Your task to perform on an android device: turn on bluetooth scan Image 0: 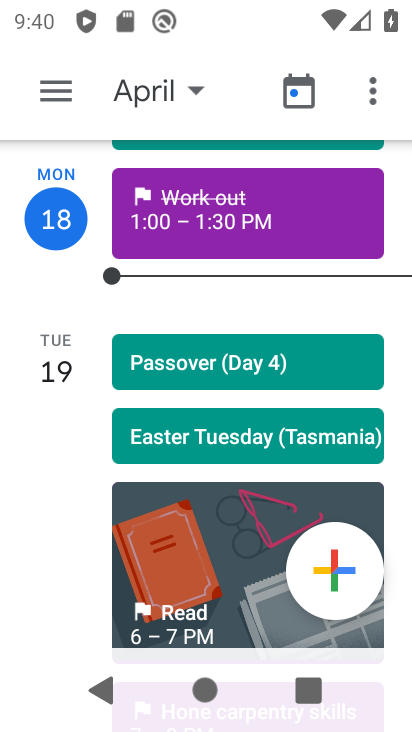
Step 0: press home button
Your task to perform on an android device: turn on bluetooth scan Image 1: 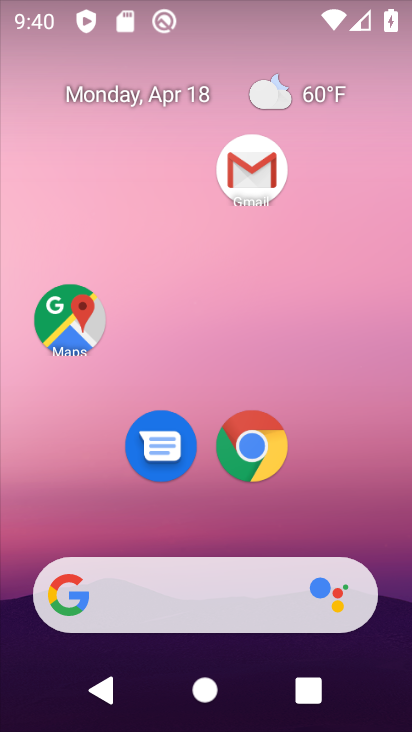
Step 1: drag from (244, 512) to (250, 29)
Your task to perform on an android device: turn on bluetooth scan Image 2: 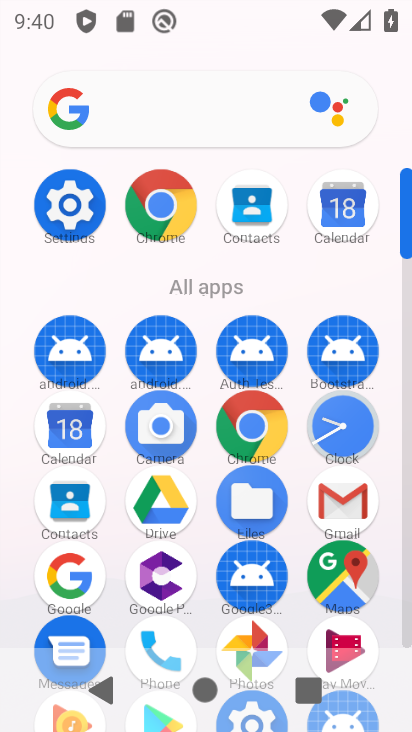
Step 2: click (71, 209)
Your task to perform on an android device: turn on bluetooth scan Image 3: 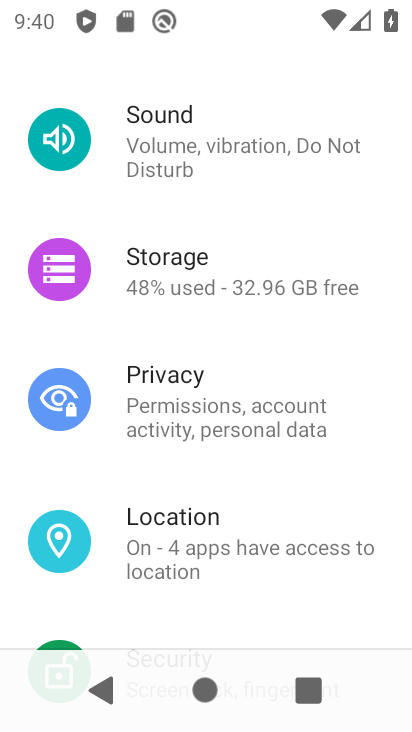
Step 3: drag from (298, 357) to (290, 548)
Your task to perform on an android device: turn on bluetooth scan Image 4: 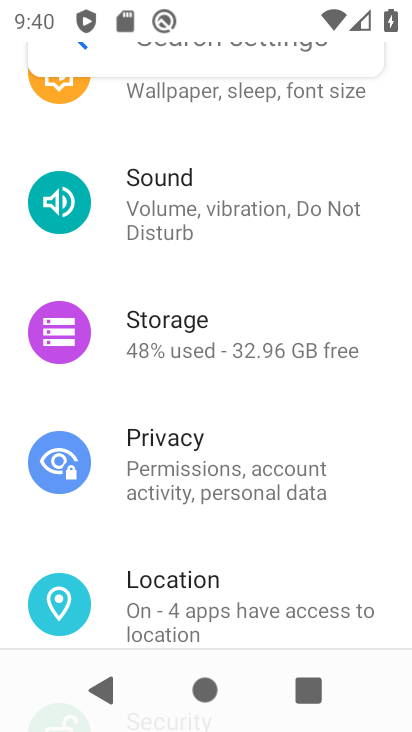
Step 4: drag from (325, 144) to (335, 549)
Your task to perform on an android device: turn on bluetooth scan Image 5: 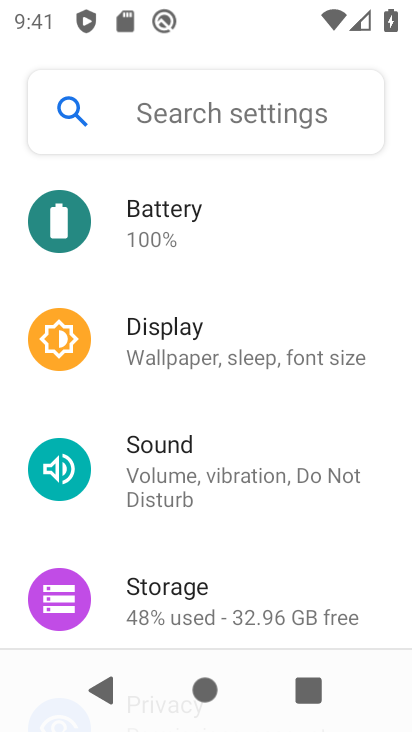
Step 5: drag from (226, 553) to (257, 81)
Your task to perform on an android device: turn on bluetooth scan Image 6: 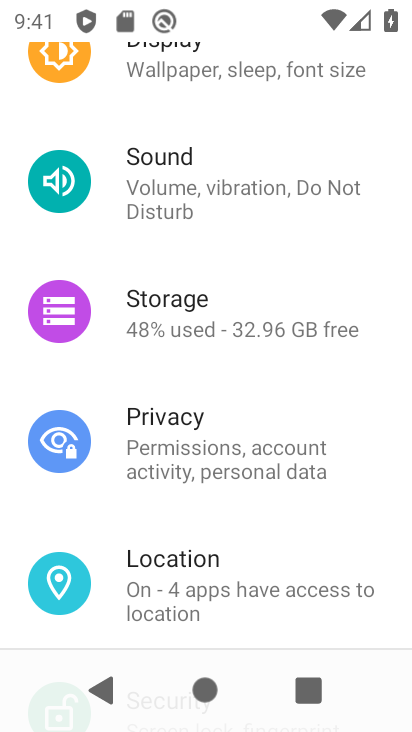
Step 6: drag from (231, 534) to (280, 60)
Your task to perform on an android device: turn on bluetooth scan Image 7: 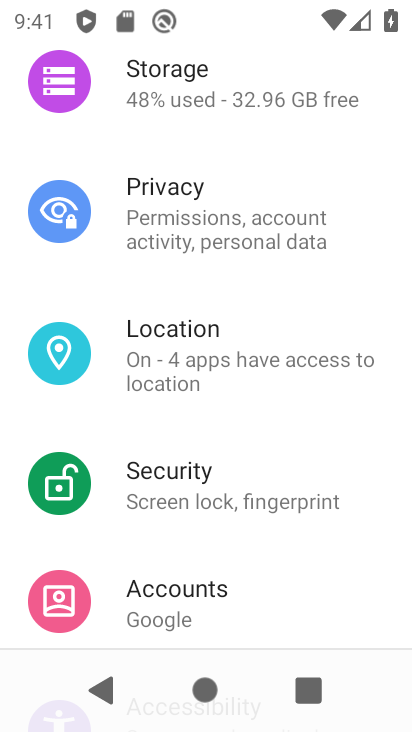
Step 7: drag from (299, 462) to (337, 44)
Your task to perform on an android device: turn on bluetooth scan Image 8: 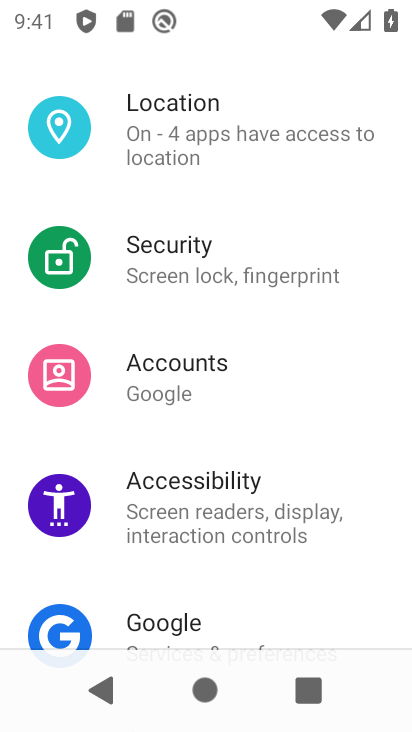
Step 8: drag from (357, 93) to (285, 598)
Your task to perform on an android device: turn on bluetooth scan Image 9: 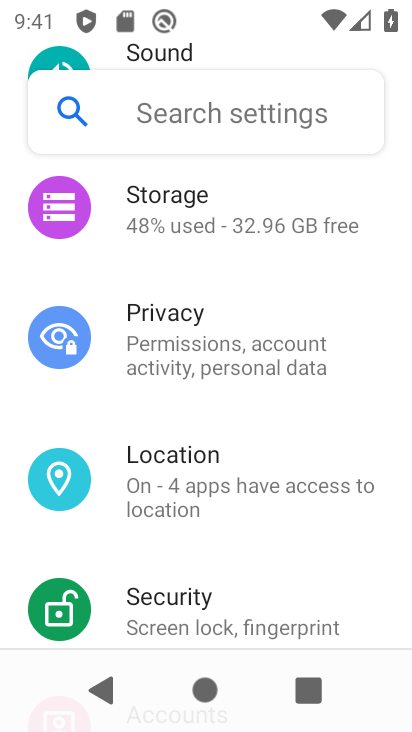
Step 9: click (333, 195)
Your task to perform on an android device: turn on bluetooth scan Image 10: 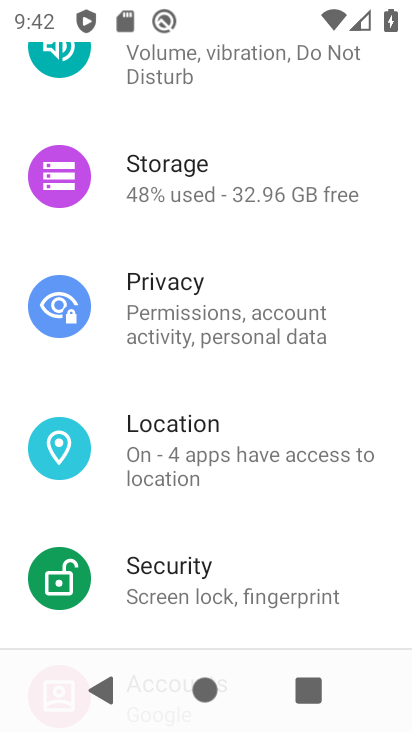
Step 10: drag from (257, 524) to (252, 166)
Your task to perform on an android device: turn on bluetooth scan Image 11: 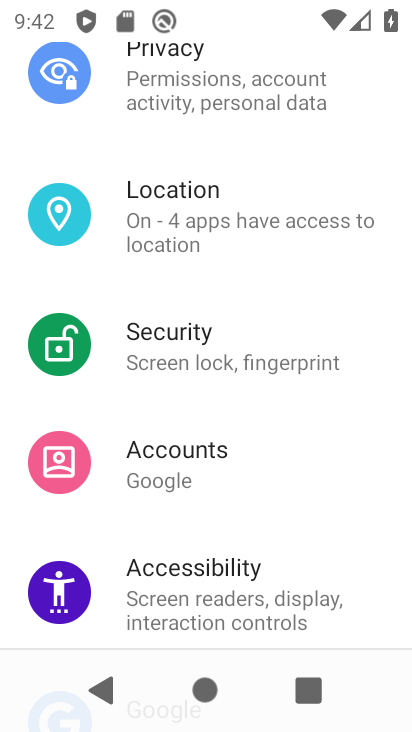
Step 11: drag from (344, 186) to (259, 551)
Your task to perform on an android device: turn on bluetooth scan Image 12: 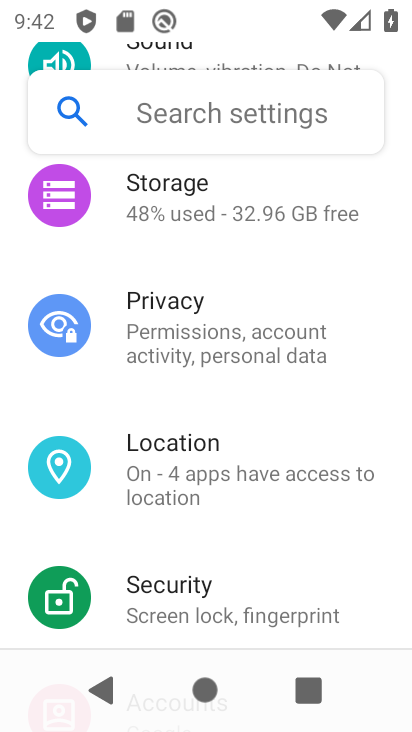
Step 12: drag from (344, 308) to (286, 507)
Your task to perform on an android device: turn on bluetooth scan Image 13: 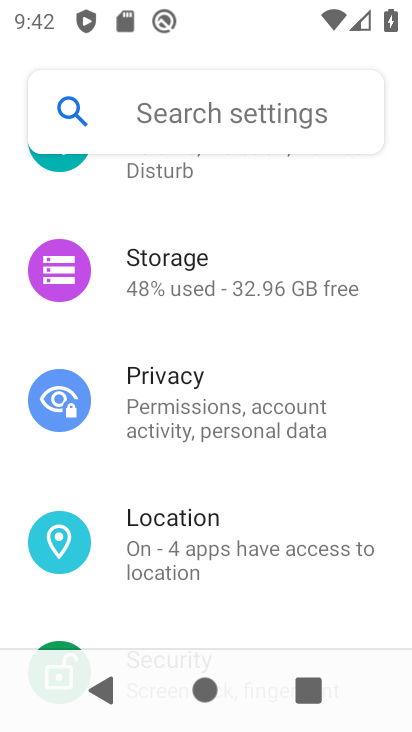
Step 13: drag from (296, 221) to (259, 625)
Your task to perform on an android device: turn on bluetooth scan Image 14: 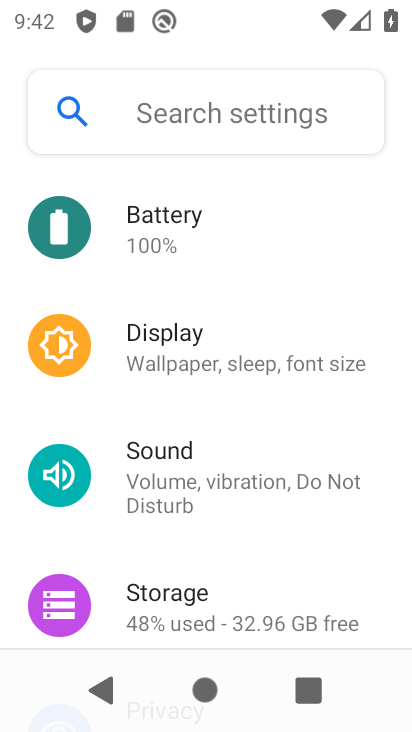
Step 14: drag from (368, 265) to (302, 585)
Your task to perform on an android device: turn on bluetooth scan Image 15: 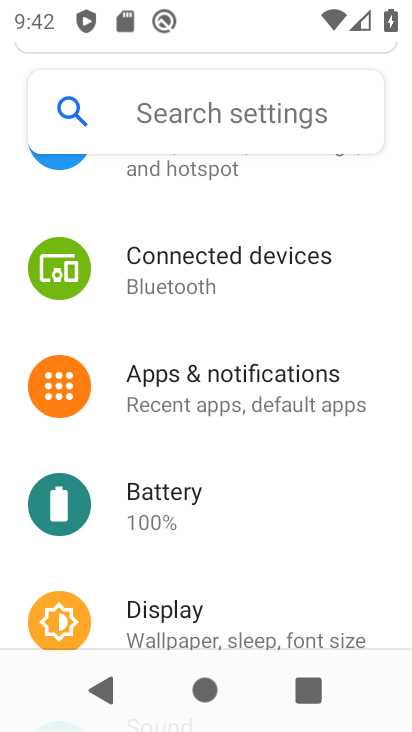
Step 15: drag from (310, 248) to (292, 427)
Your task to perform on an android device: turn on bluetooth scan Image 16: 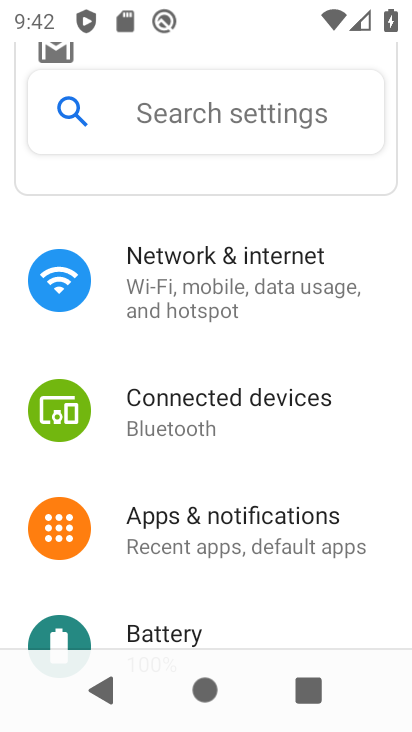
Step 16: drag from (310, 604) to (345, 163)
Your task to perform on an android device: turn on bluetooth scan Image 17: 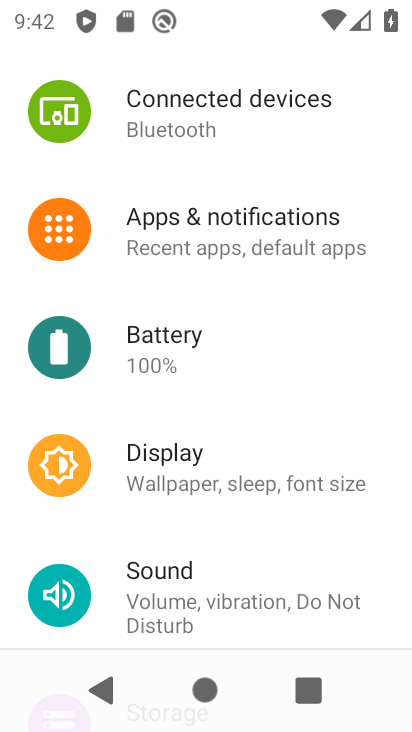
Step 17: drag from (267, 580) to (280, 160)
Your task to perform on an android device: turn on bluetooth scan Image 18: 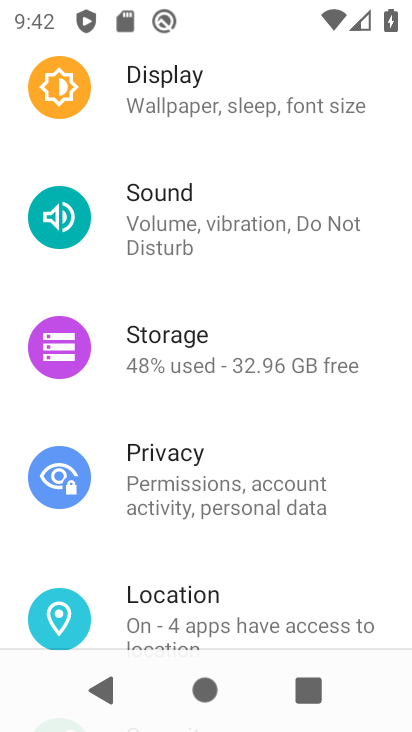
Step 18: drag from (267, 574) to (293, 164)
Your task to perform on an android device: turn on bluetooth scan Image 19: 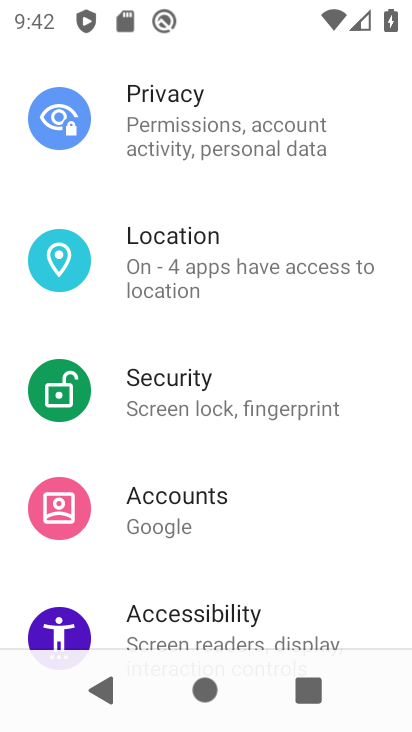
Step 19: click (256, 247)
Your task to perform on an android device: turn on bluetooth scan Image 20: 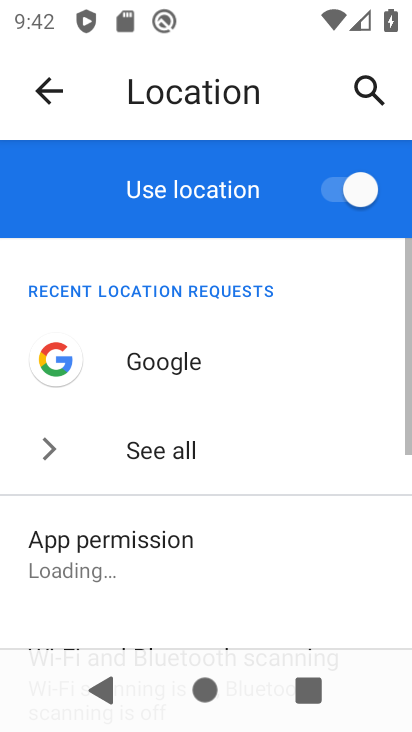
Step 20: drag from (250, 548) to (239, 116)
Your task to perform on an android device: turn on bluetooth scan Image 21: 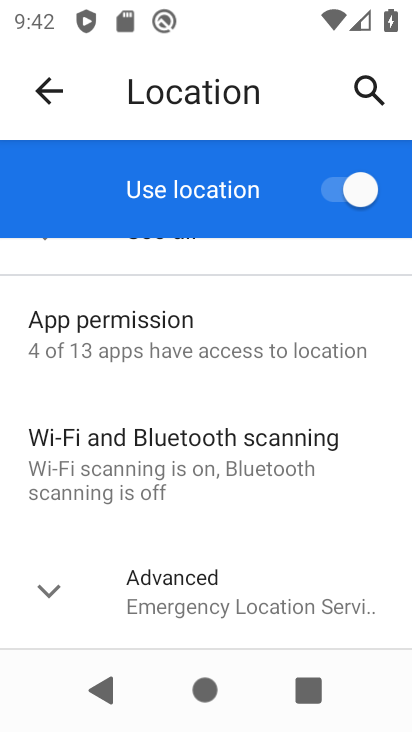
Step 21: click (224, 475)
Your task to perform on an android device: turn on bluetooth scan Image 22: 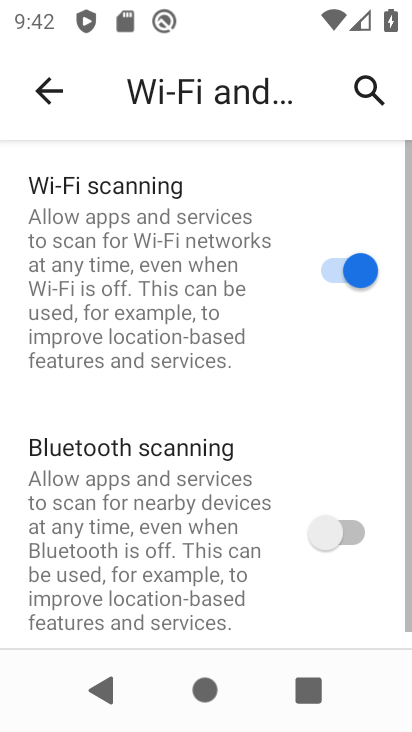
Step 22: click (354, 542)
Your task to perform on an android device: turn on bluetooth scan Image 23: 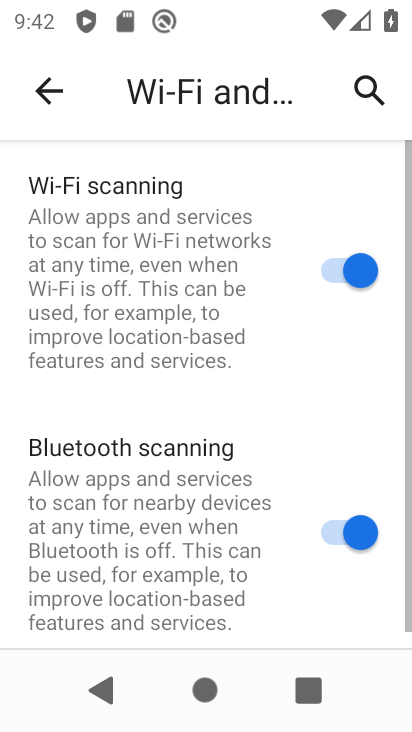
Step 23: task complete